Your task to perform on an android device: open chrome privacy settings Image 0: 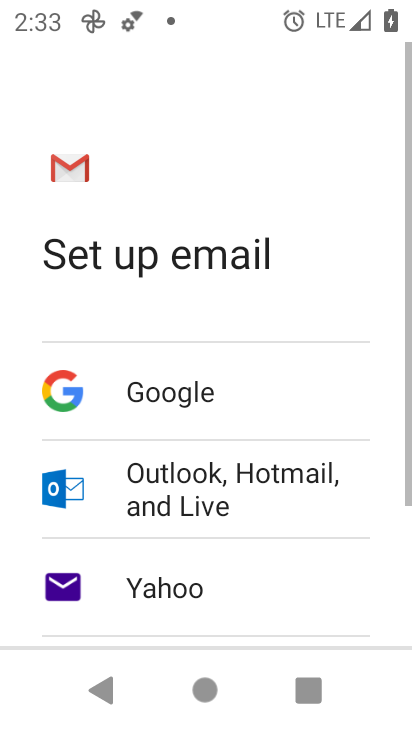
Step 0: press home button
Your task to perform on an android device: open chrome privacy settings Image 1: 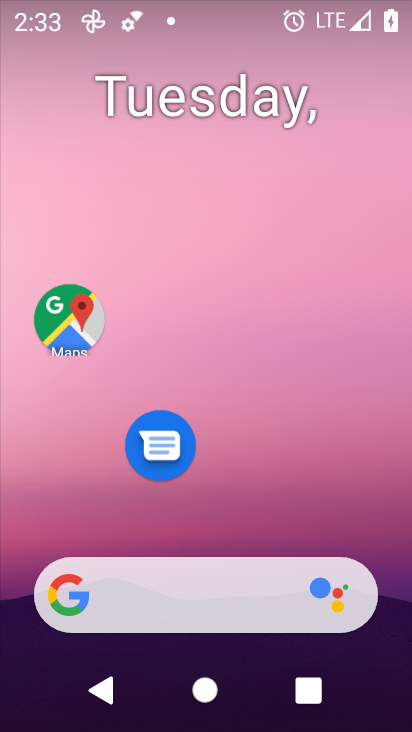
Step 1: drag from (335, 481) to (224, 79)
Your task to perform on an android device: open chrome privacy settings Image 2: 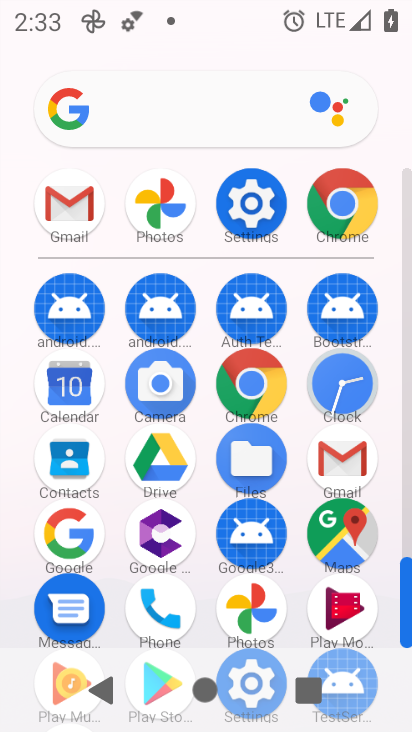
Step 2: click (348, 202)
Your task to perform on an android device: open chrome privacy settings Image 3: 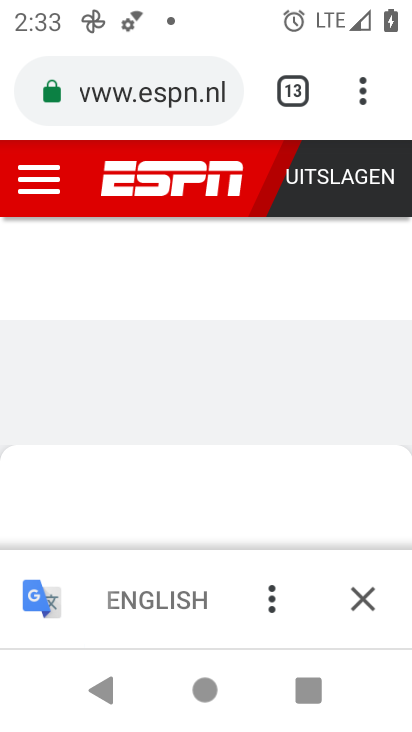
Step 3: click (359, 86)
Your task to perform on an android device: open chrome privacy settings Image 4: 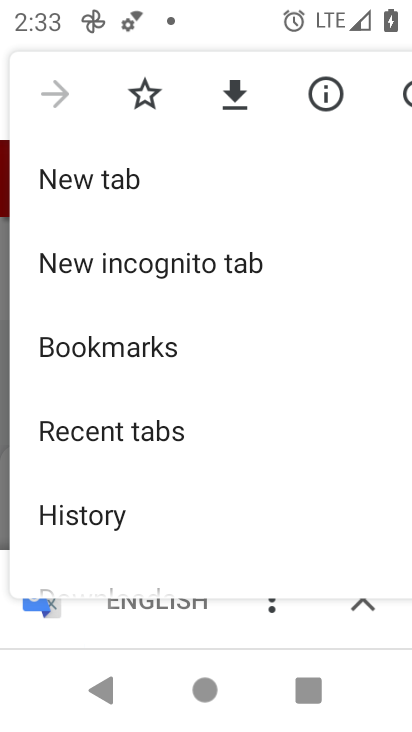
Step 4: drag from (179, 468) to (83, 76)
Your task to perform on an android device: open chrome privacy settings Image 5: 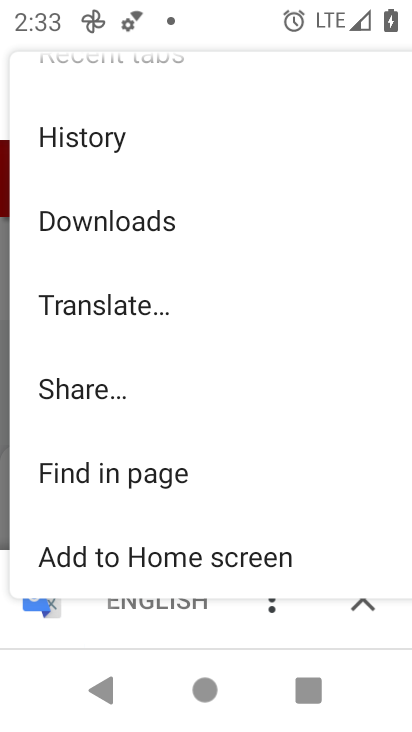
Step 5: drag from (205, 444) to (153, 166)
Your task to perform on an android device: open chrome privacy settings Image 6: 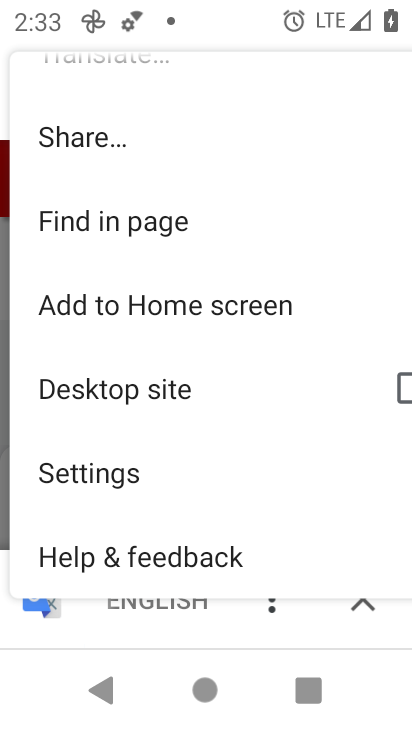
Step 6: click (104, 465)
Your task to perform on an android device: open chrome privacy settings Image 7: 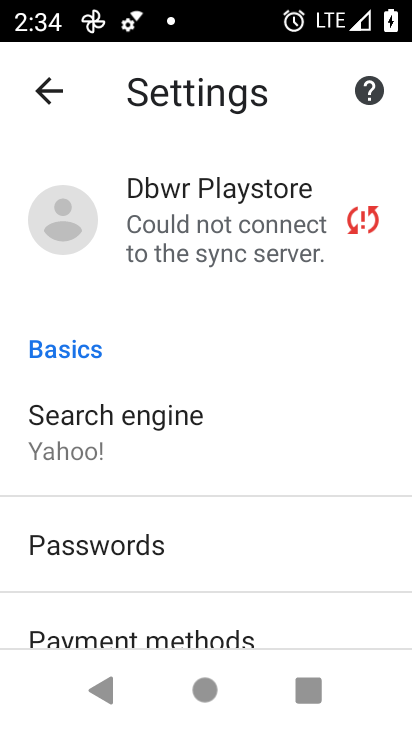
Step 7: drag from (274, 490) to (187, 204)
Your task to perform on an android device: open chrome privacy settings Image 8: 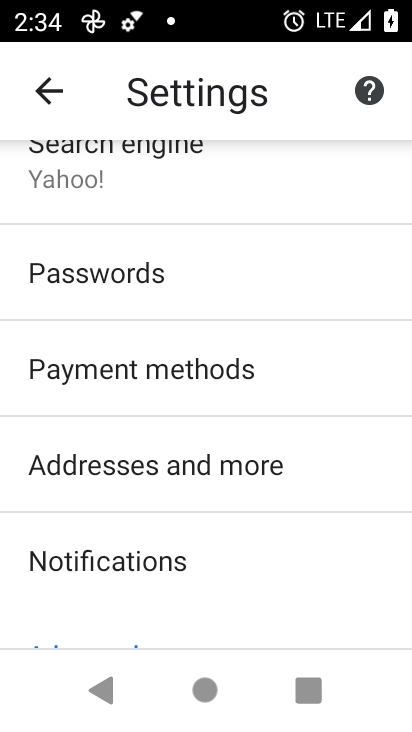
Step 8: drag from (207, 511) to (149, 219)
Your task to perform on an android device: open chrome privacy settings Image 9: 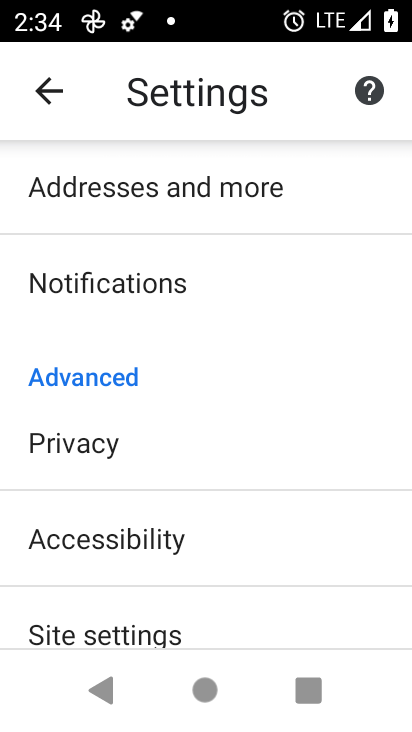
Step 9: click (93, 446)
Your task to perform on an android device: open chrome privacy settings Image 10: 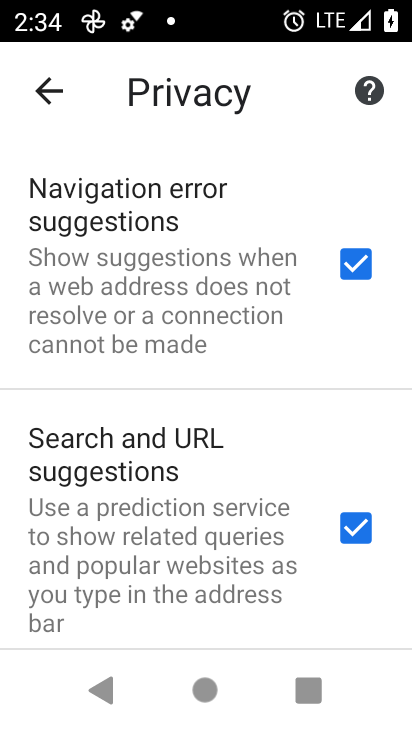
Step 10: task complete